Your task to perform on an android device: turn off location history Image 0: 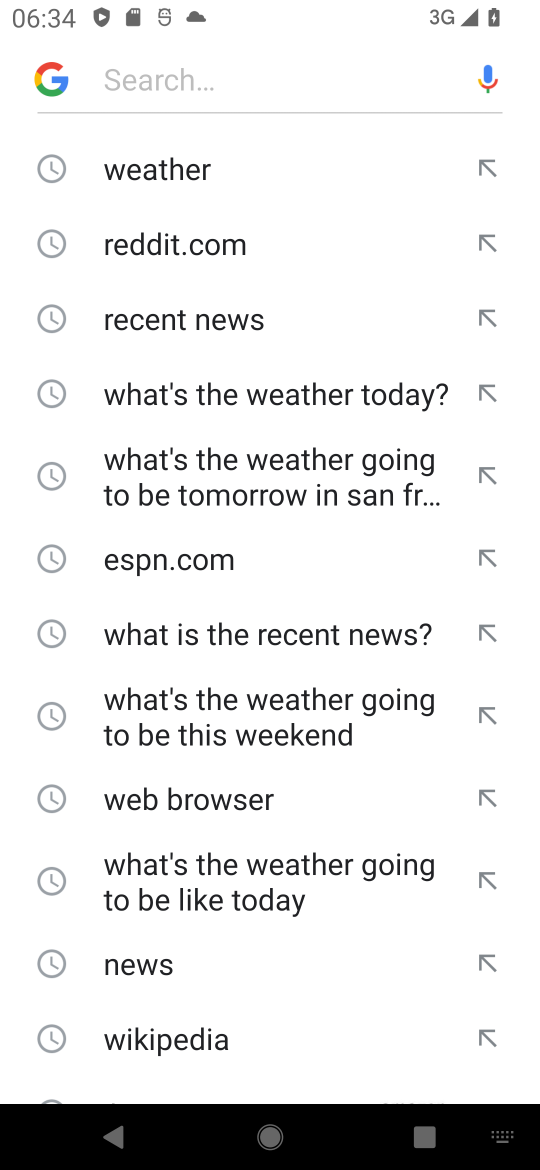
Step 0: press home button
Your task to perform on an android device: turn off location history Image 1: 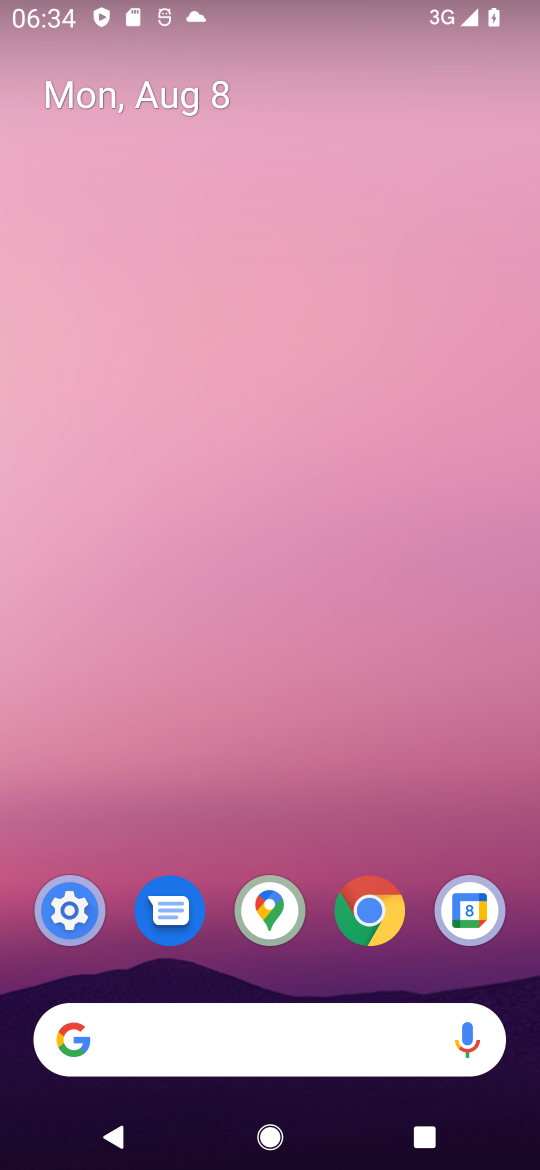
Step 1: drag from (183, 1024) to (273, 295)
Your task to perform on an android device: turn off location history Image 2: 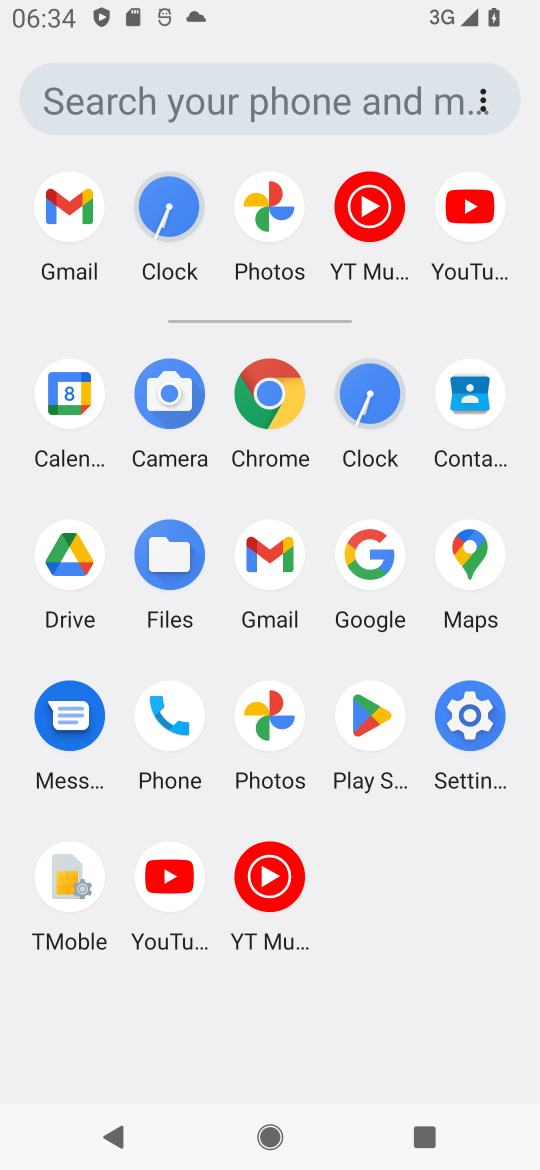
Step 2: click (470, 715)
Your task to perform on an android device: turn off location history Image 3: 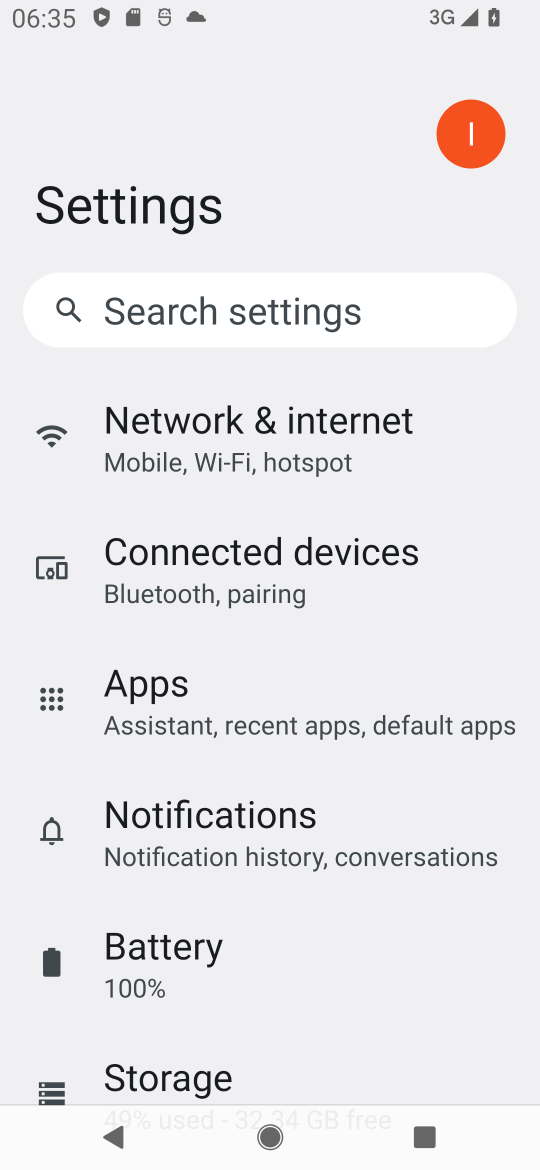
Step 3: drag from (277, 884) to (305, 727)
Your task to perform on an android device: turn off location history Image 4: 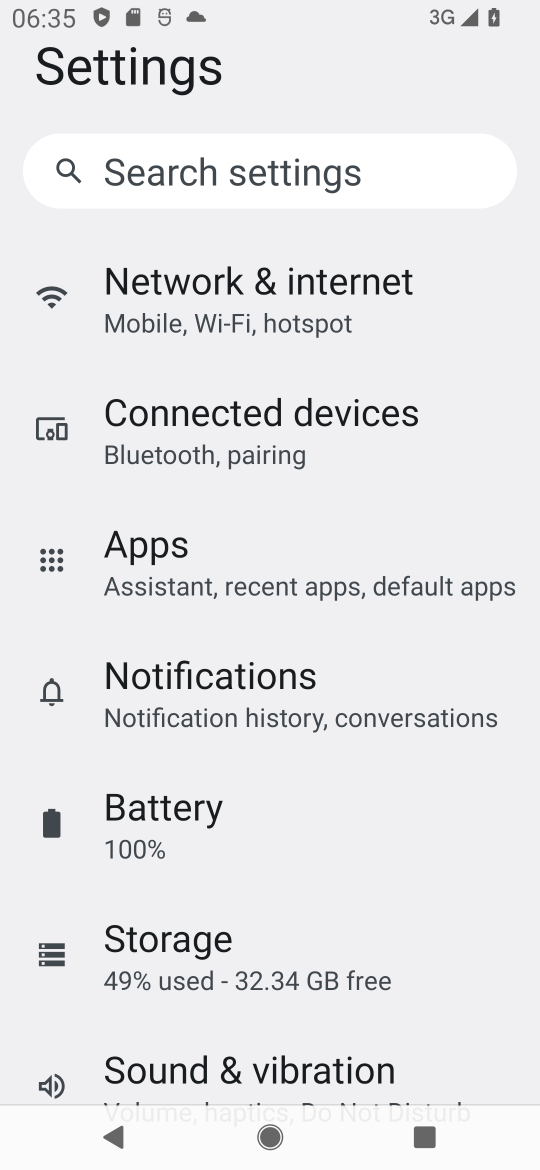
Step 4: drag from (235, 876) to (308, 713)
Your task to perform on an android device: turn off location history Image 5: 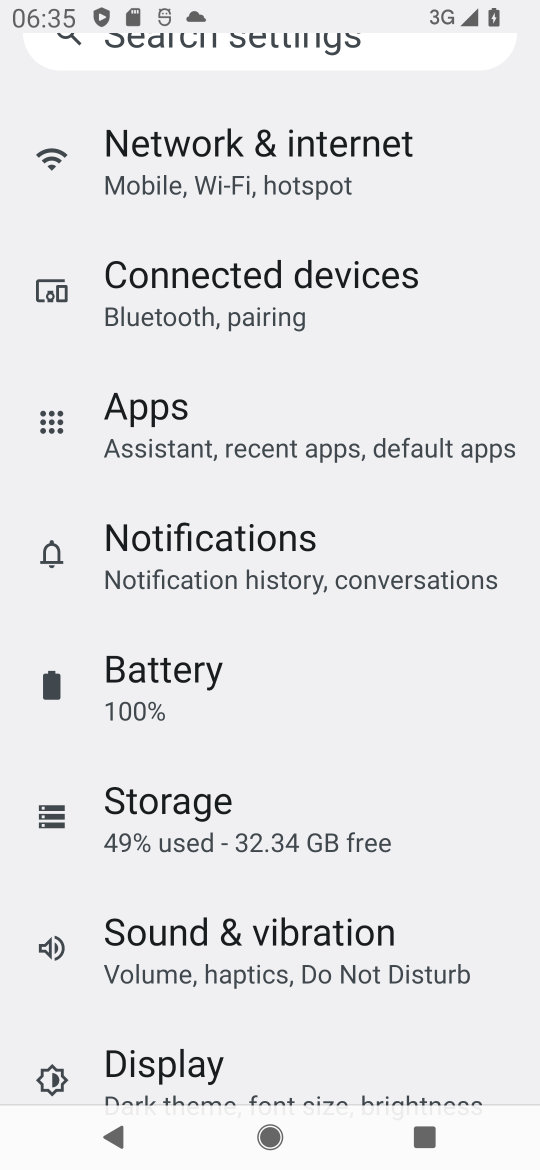
Step 5: drag from (268, 896) to (321, 743)
Your task to perform on an android device: turn off location history Image 6: 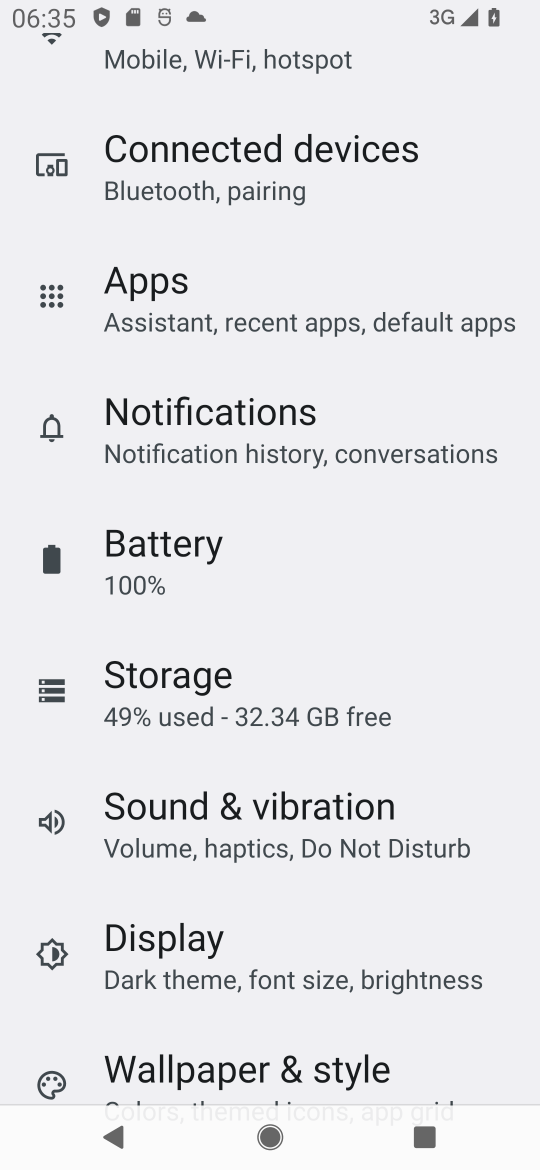
Step 6: drag from (250, 997) to (361, 844)
Your task to perform on an android device: turn off location history Image 7: 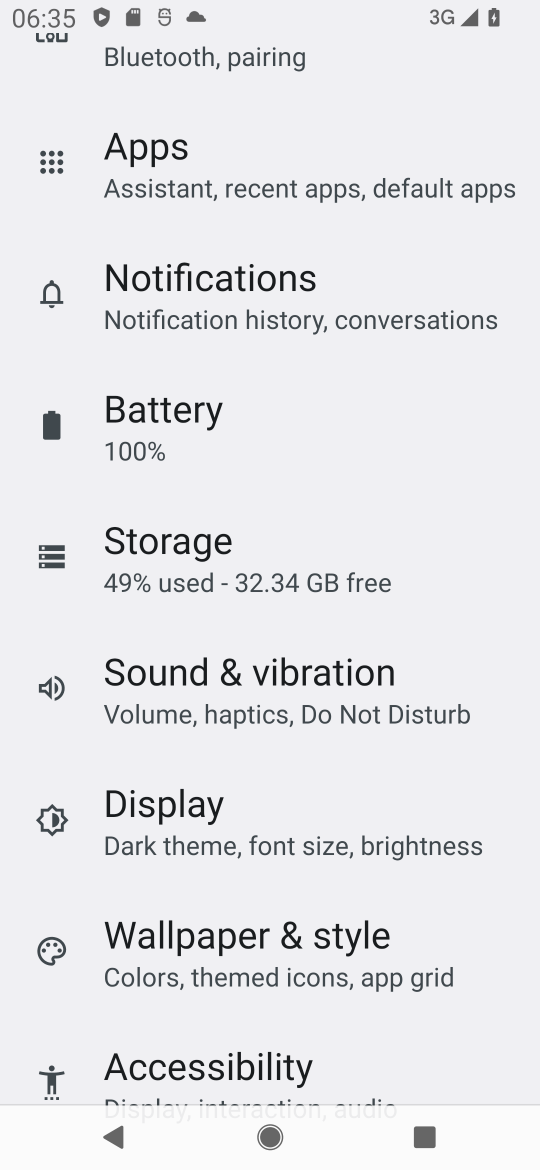
Step 7: drag from (245, 1016) to (356, 823)
Your task to perform on an android device: turn off location history Image 8: 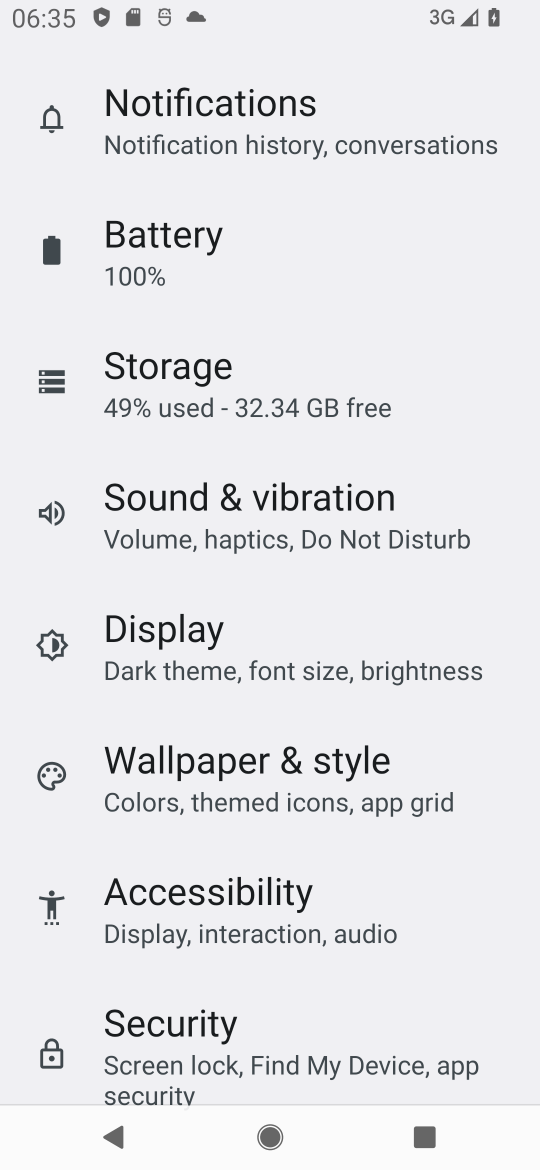
Step 8: drag from (218, 989) to (386, 753)
Your task to perform on an android device: turn off location history Image 9: 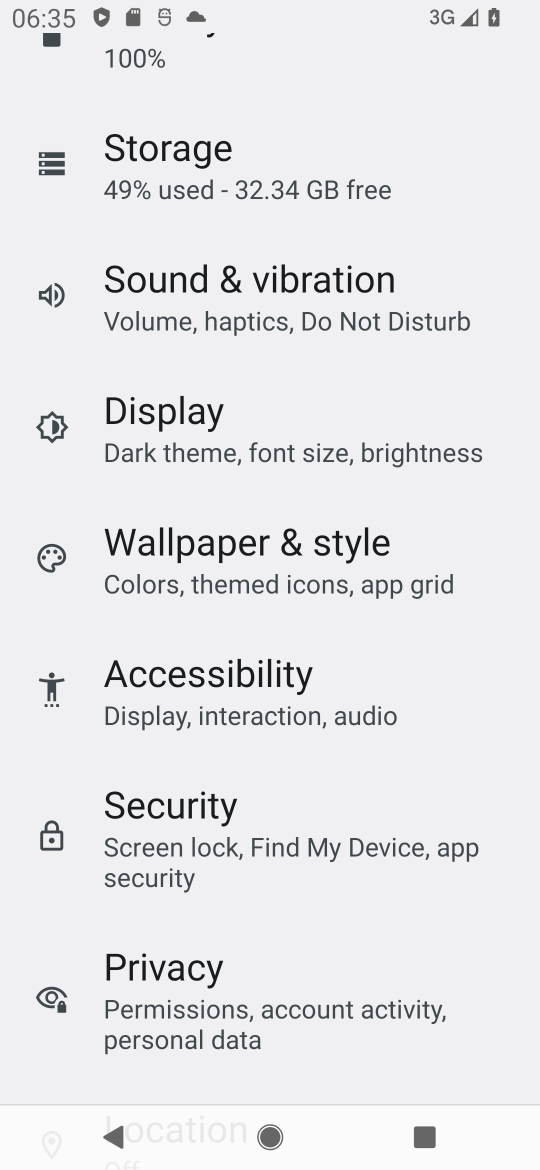
Step 9: drag from (185, 934) to (296, 728)
Your task to perform on an android device: turn off location history Image 10: 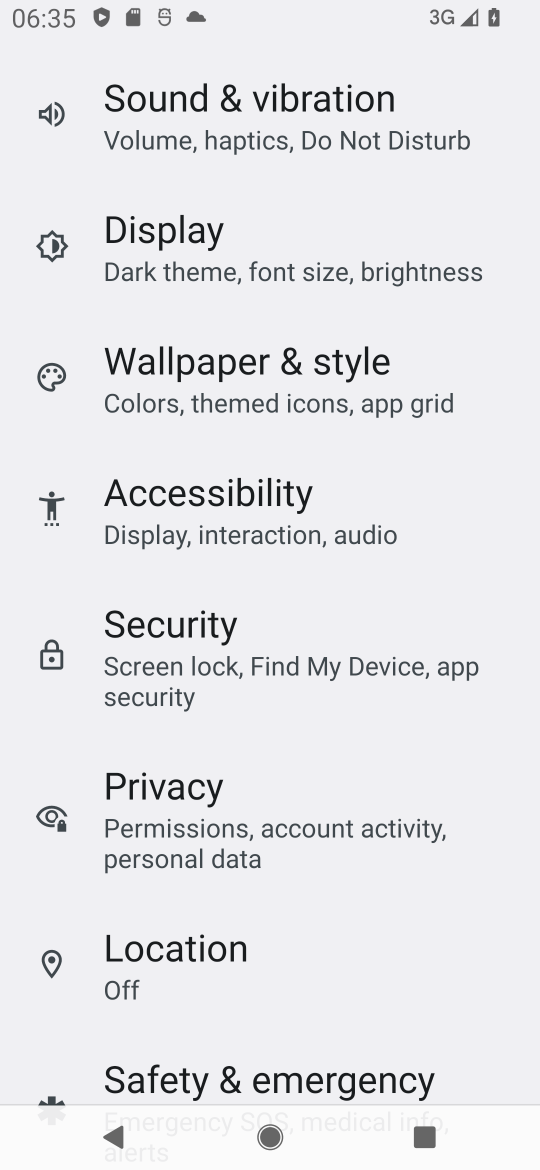
Step 10: click (182, 944)
Your task to perform on an android device: turn off location history Image 11: 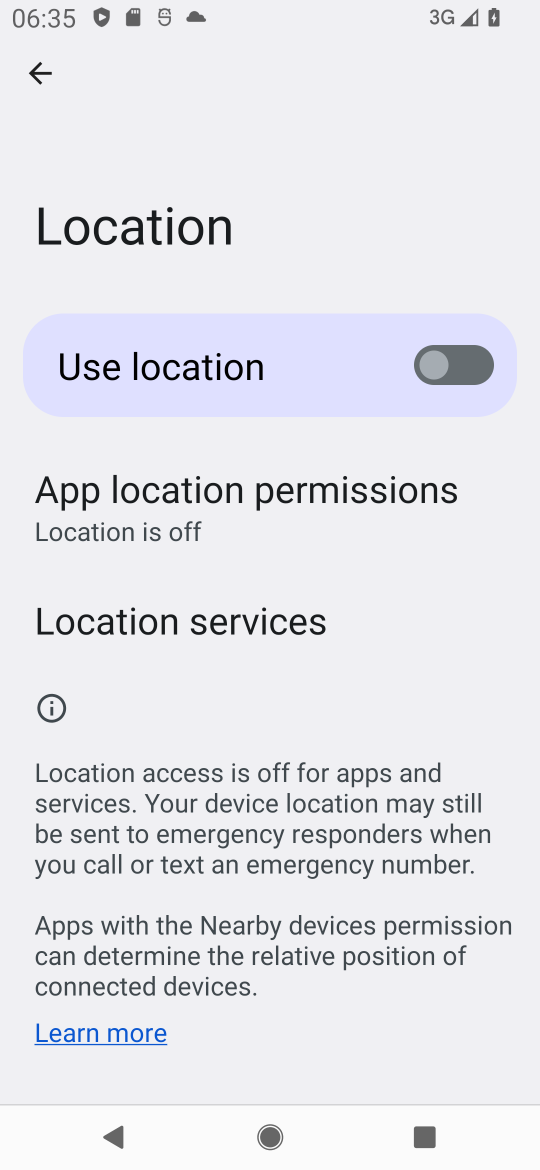
Step 11: click (251, 627)
Your task to perform on an android device: turn off location history Image 12: 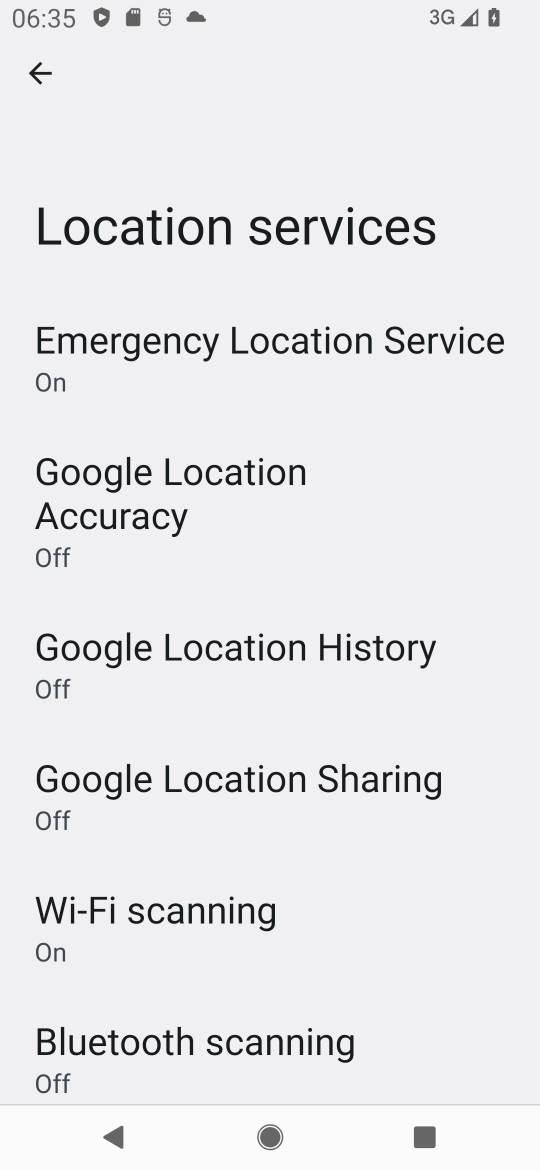
Step 12: task complete